Your task to perform on an android device: open sync settings in chrome Image 0: 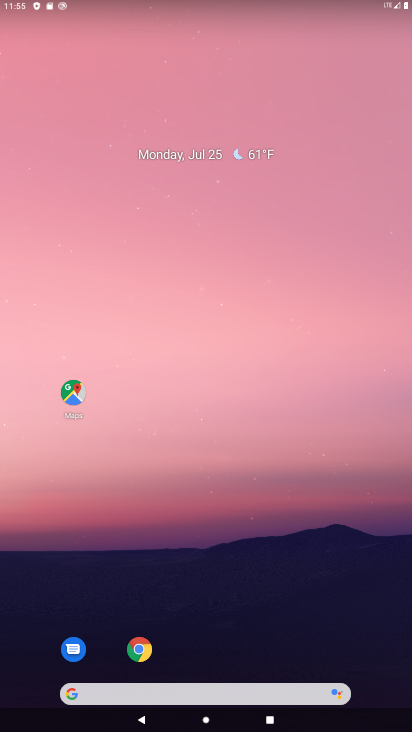
Step 0: click (145, 653)
Your task to perform on an android device: open sync settings in chrome Image 1: 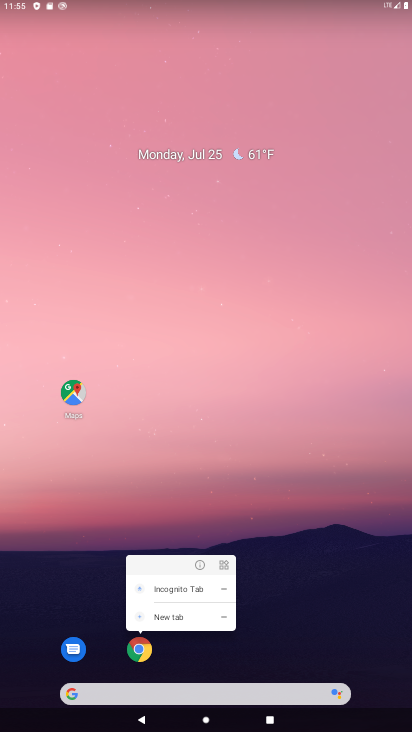
Step 1: click (141, 653)
Your task to perform on an android device: open sync settings in chrome Image 2: 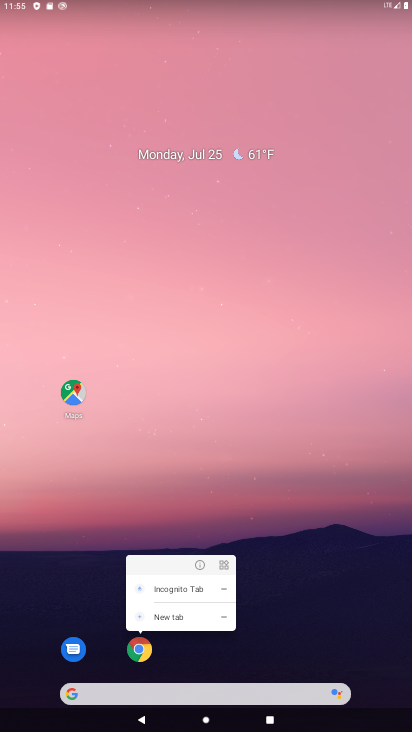
Step 2: click (141, 653)
Your task to perform on an android device: open sync settings in chrome Image 3: 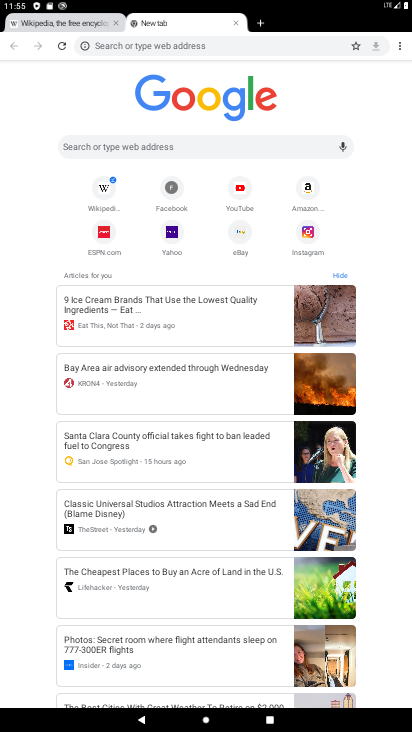
Step 3: click (399, 48)
Your task to perform on an android device: open sync settings in chrome Image 4: 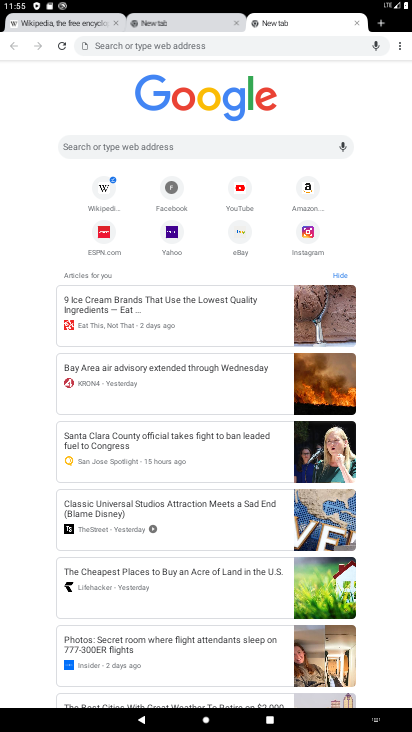
Step 4: drag from (398, 45) to (311, 209)
Your task to perform on an android device: open sync settings in chrome Image 5: 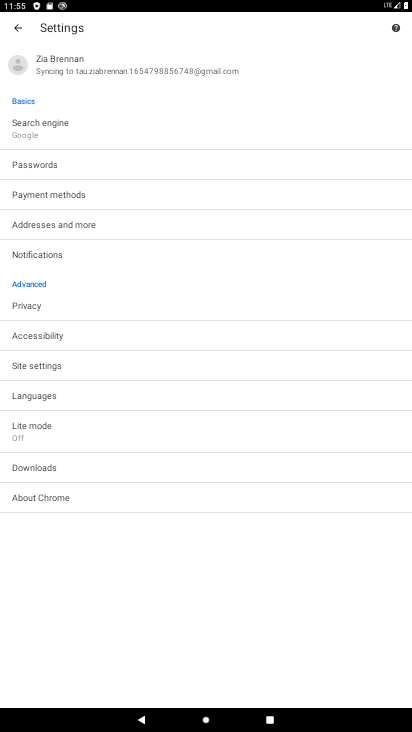
Step 5: click (39, 54)
Your task to perform on an android device: open sync settings in chrome Image 6: 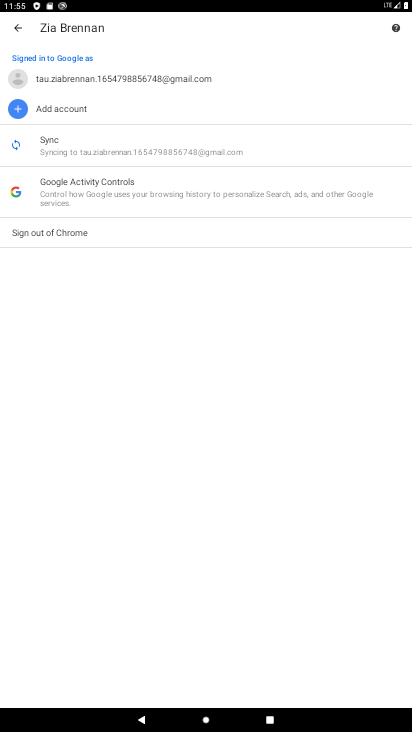
Step 6: click (102, 156)
Your task to perform on an android device: open sync settings in chrome Image 7: 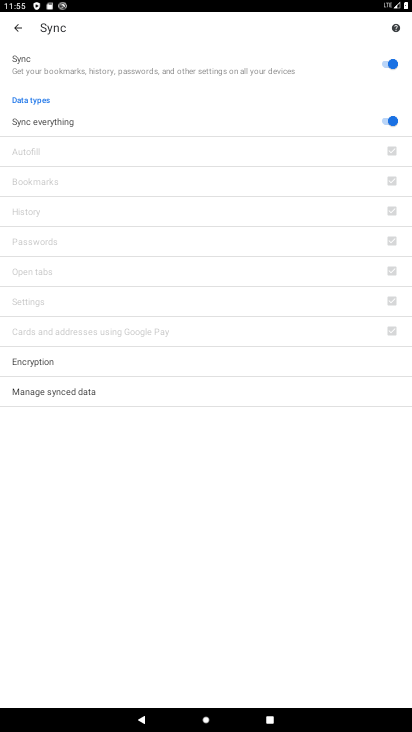
Step 7: task complete